Your task to perform on an android device: open app "Nova Launcher" Image 0: 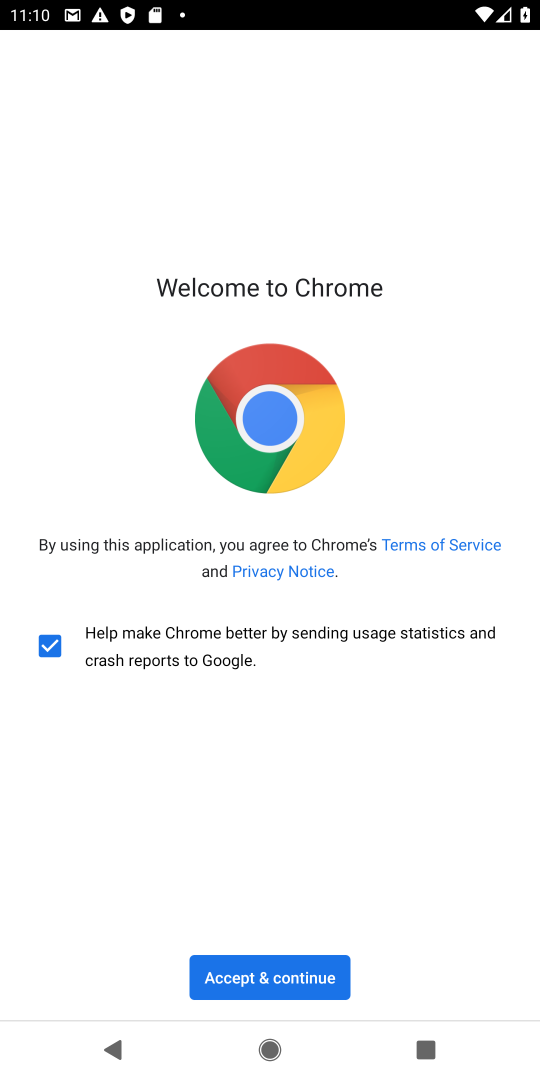
Step 0: press home button
Your task to perform on an android device: open app "Nova Launcher" Image 1: 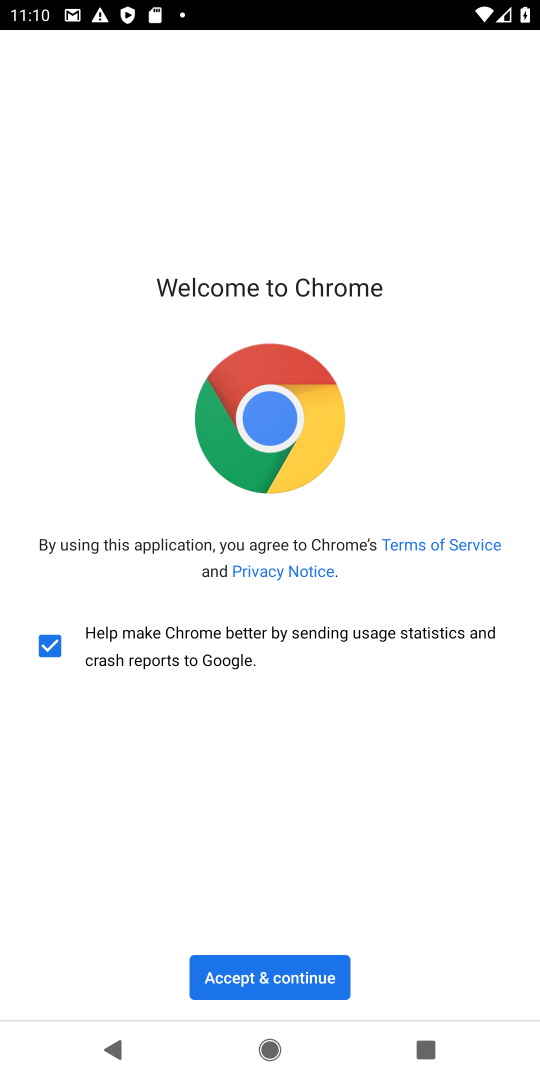
Step 1: press home button
Your task to perform on an android device: open app "Nova Launcher" Image 2: 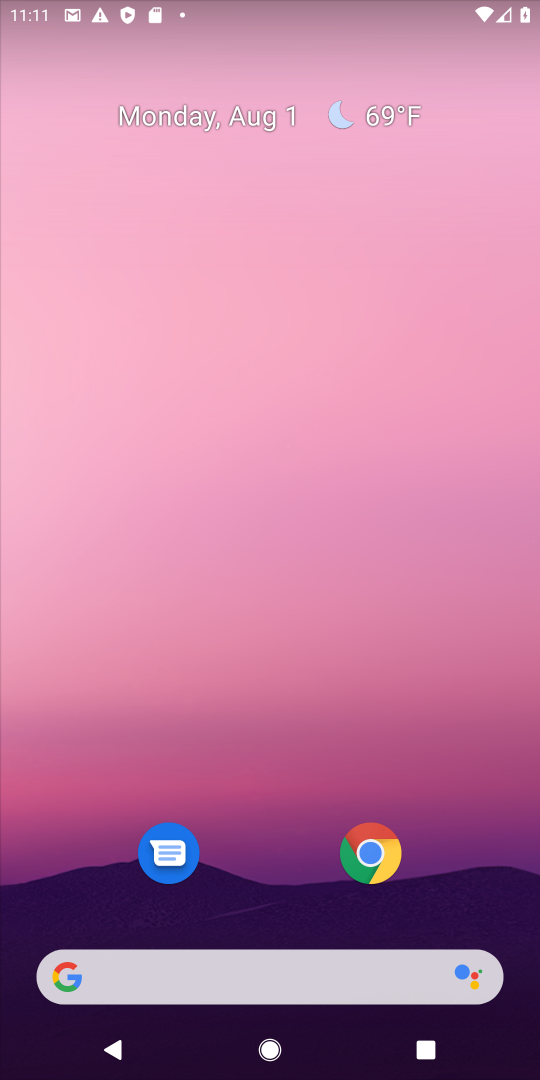
Step 2: drag from (436, 889) to (510, 186)
Your task to perform on an android device: open app "Nova Launcher" Image 3: 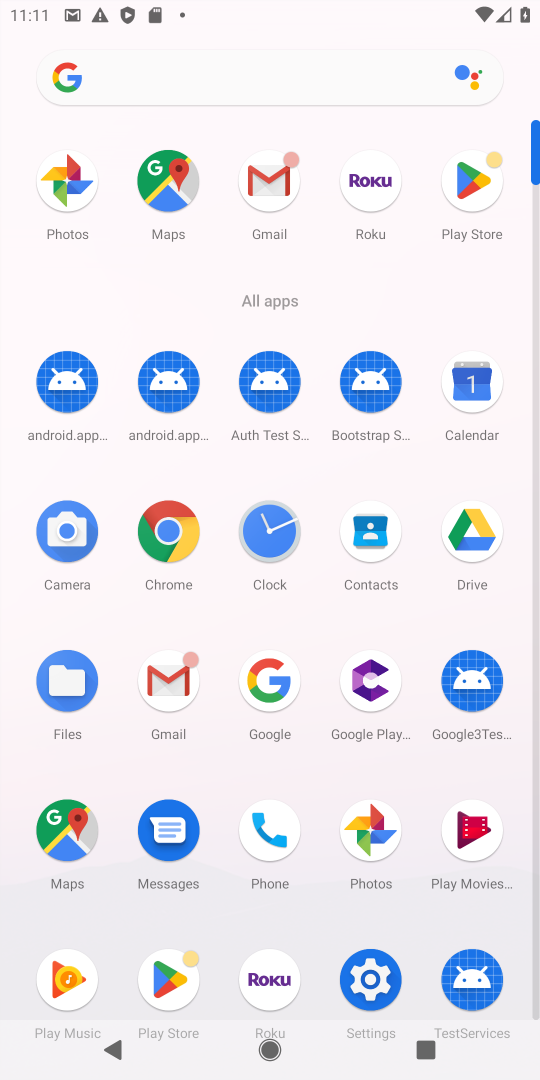
Step 3: click (147, 978)
Your task to perform on an android device: open app "Nova Launcher" Image 4: 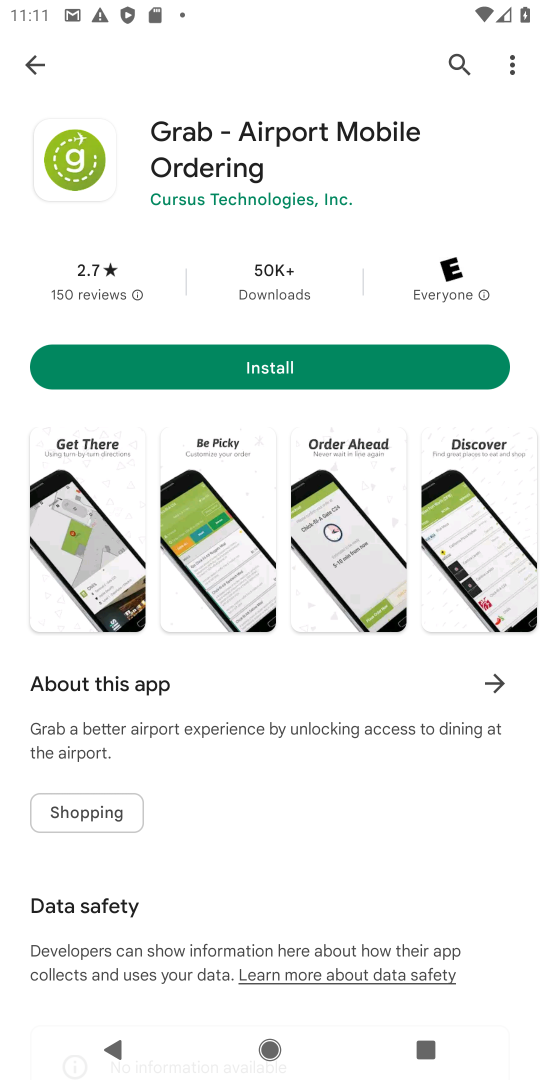
Step 4: click (456, 69)
Your task to perform on an android device: open app "Nova Launcher" Image 5: 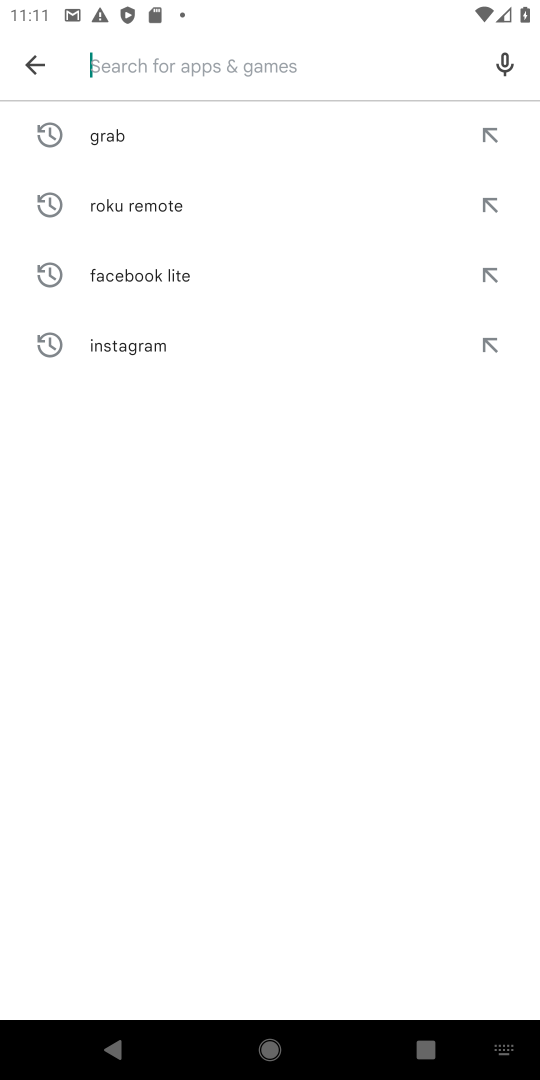
Step 5: type "Nova Launcher""
Your task to perform on an android device: open app "Nova Launcher" Image 6: 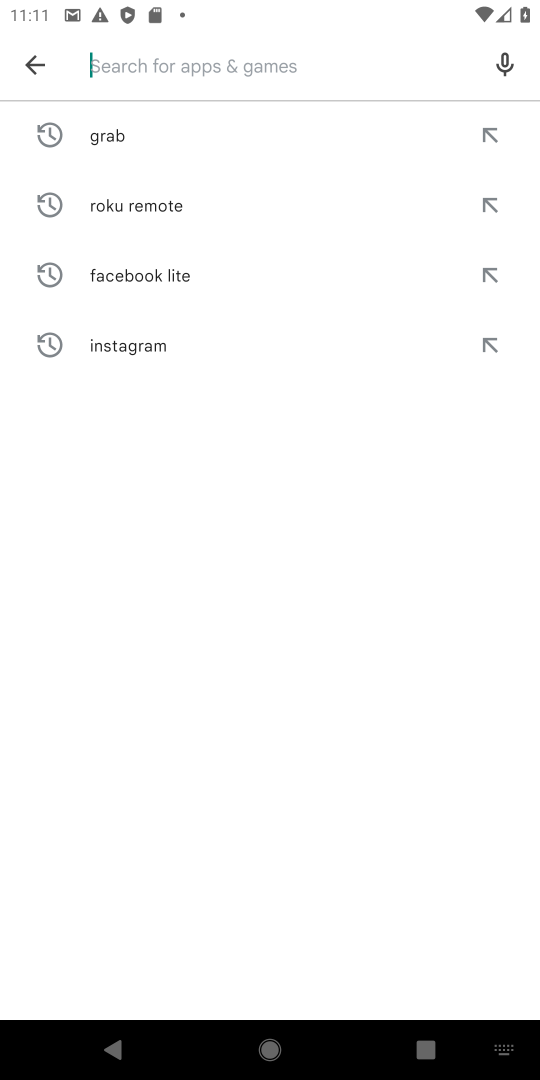
Step 6: type ""
Your task to perform on an android device: open app "Nova Launcher" Image 7: 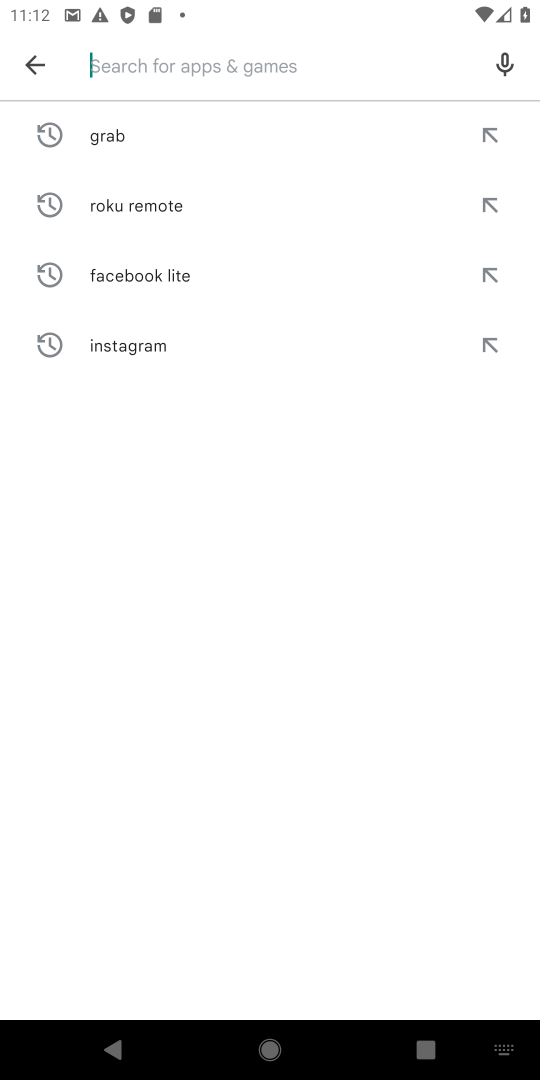
Step 7: type "Nova Launcher"
Your task to perform on an android device: open app "Nova Launcher" Image 8: 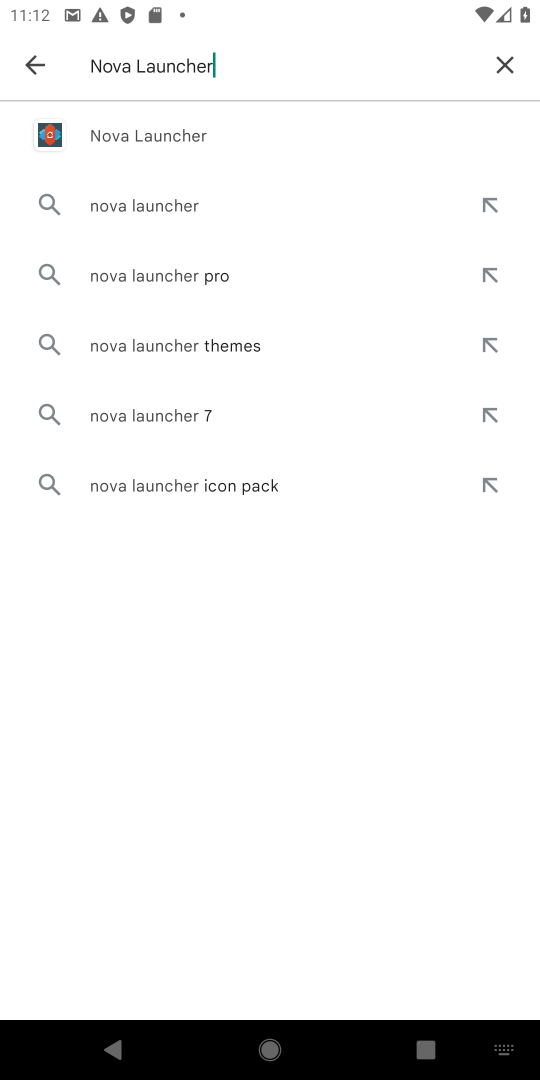
Step 8: click (140, 127)
Your task to perform on an android device: open app "Nova Launcher" Image 9: 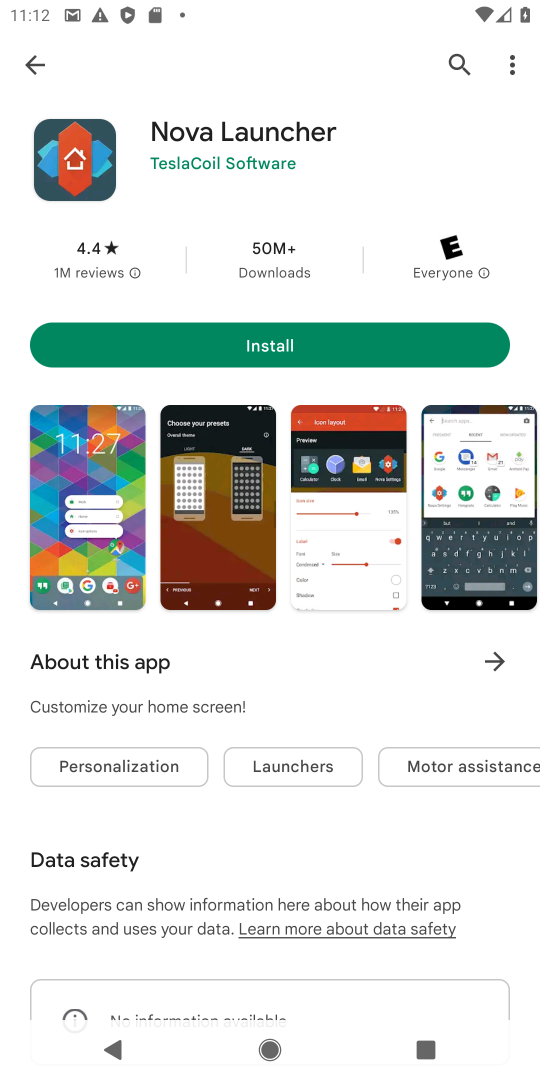
Step 9: task complete